Your task to perform on an android device: When is my next meeting? Image 0: 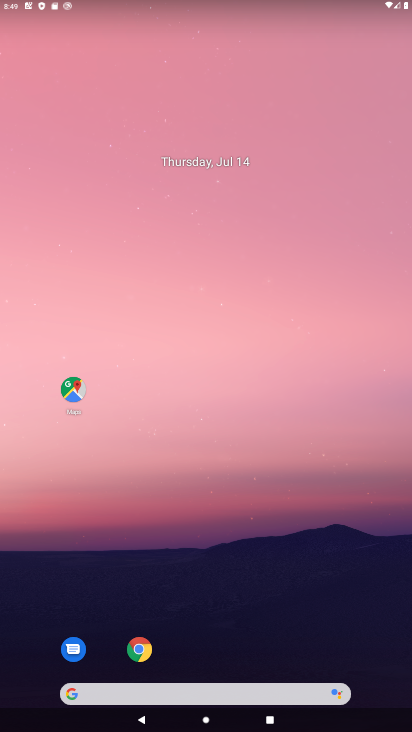
Step 0: drag from (158, 608) to (204, 102)
Your task to perform on an android device: When is my next meeting? Image 1: 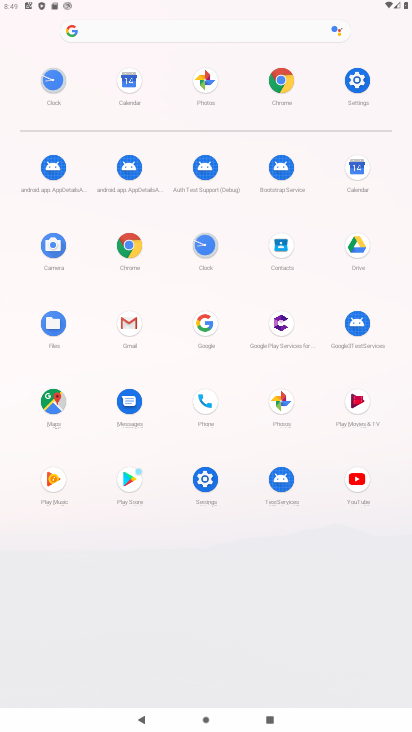
Step 1: click (361, 168)
Your task to perform on an android device: When is my next meeting? Image 2: 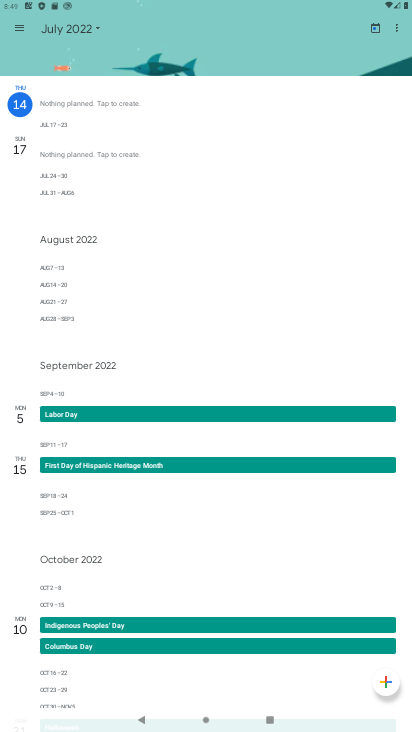
Step 2: task complete